Your task to perform on an android device: open a bookmark in the chrome app Image 0: 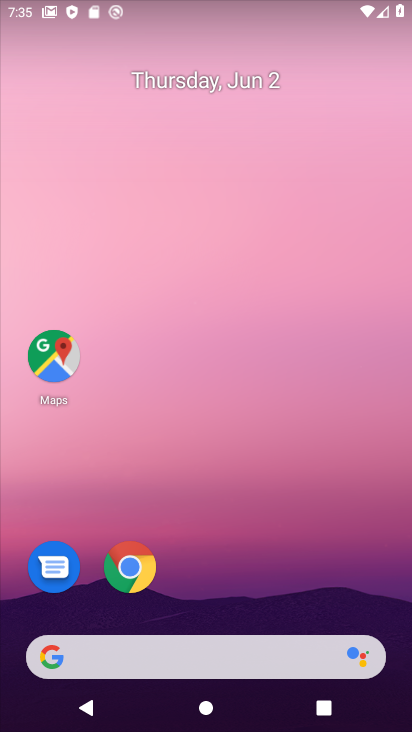
Step 0: click (131, 566)
Your task to perform on an android device: open a bookmark in the chrome app Image 1: 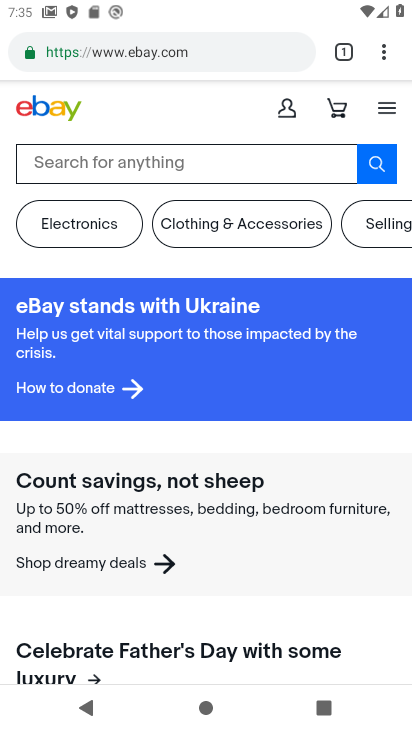
Step 1: click (384, 54)
Your task to perform on an android device: open a bookmark in the chrome app Image 2: 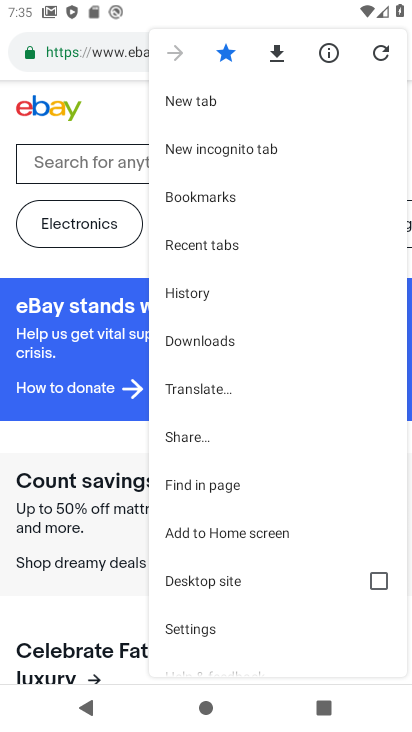
Step 2: click (216, 201)
Your task to perform on an android device: open a bookmark in the chrome app Image 3: 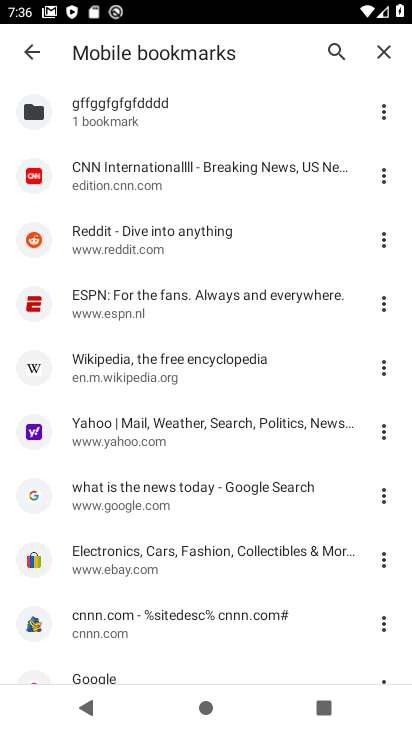
Step 3: task complete